Your task to perform on an android device: empty trash in the gmail app Image 0: 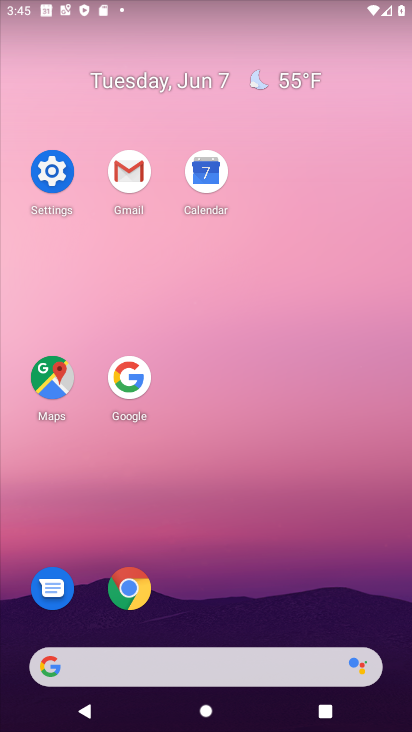
Step 0: click (138, 182)
Your task to perform on an android device: empty trash in the gmail app Image 1: 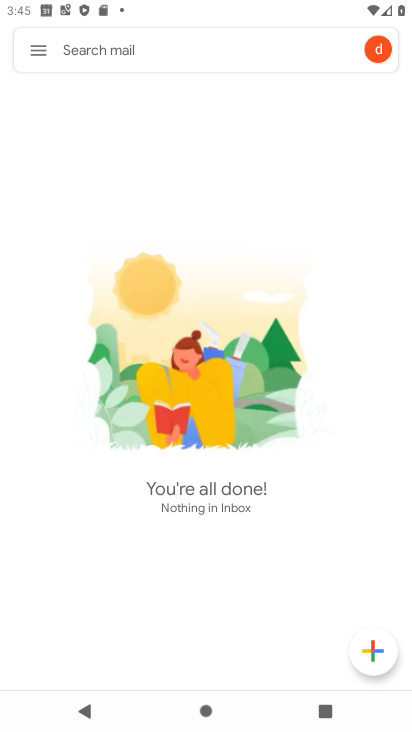
Step 1: click (43, 44)
Your task to perform on an android device: empty trash in the gmail app Image 2: 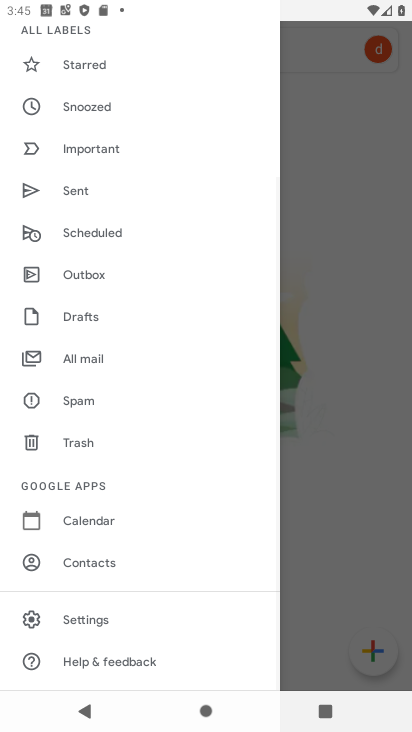
Step 2: drag from (141, 157) to (82, 564)
Your task to perform on an android device: empty trash in the gmail app Image 3: 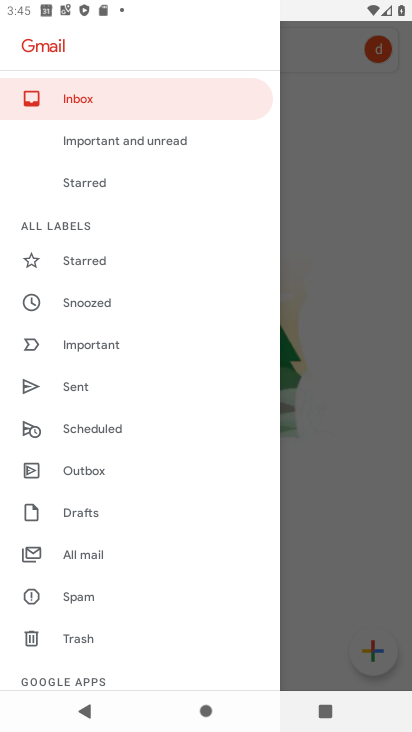
Step 3: click (112, 630)
Your task to perform on an android device: empty trash in the gmail app Image 4: 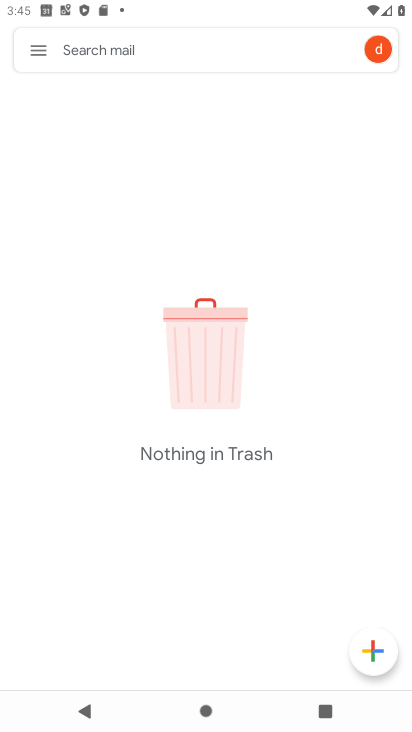
Step 4: task complete